Your task to perform on an android device: Open the calendar and show me this week's events? Image 0: 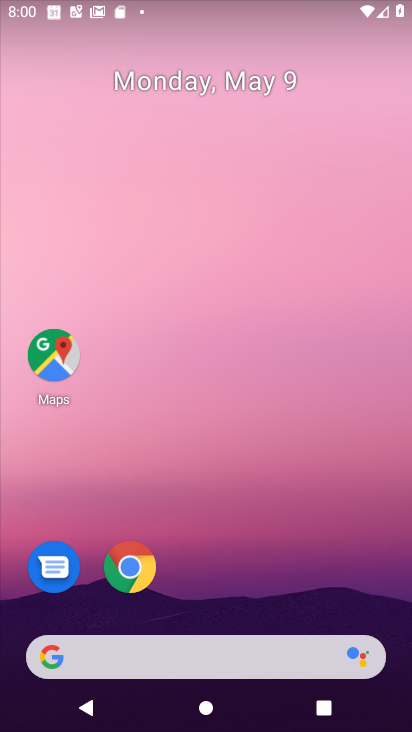
Step 0: drag from (409, 497) to (270, 168)
Your task to perform on an android device: Open the calendar and show me this week's events? Image 1: 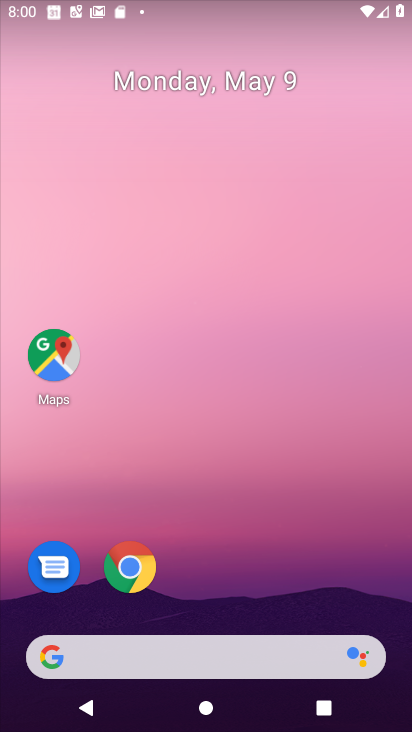
Step 1: drag from (203, 627) to (225, 137)
Your task to perform on an android device: Open the calendar and show me this week's events? Image 2: 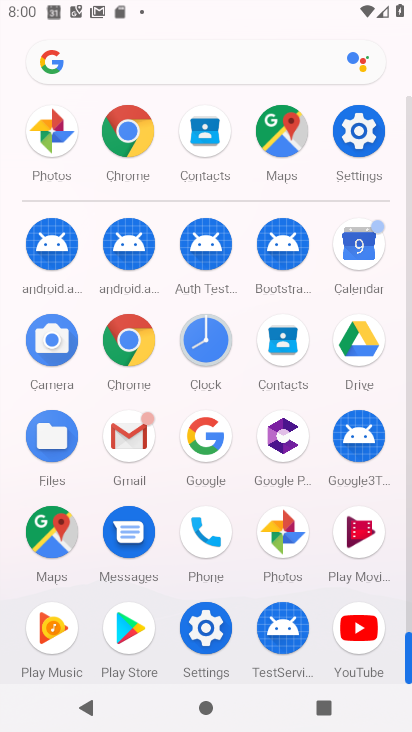
Step 2: click (362, 242)
Your task to perform on an android device: Open the calendar and show me this week's events? Image 3: 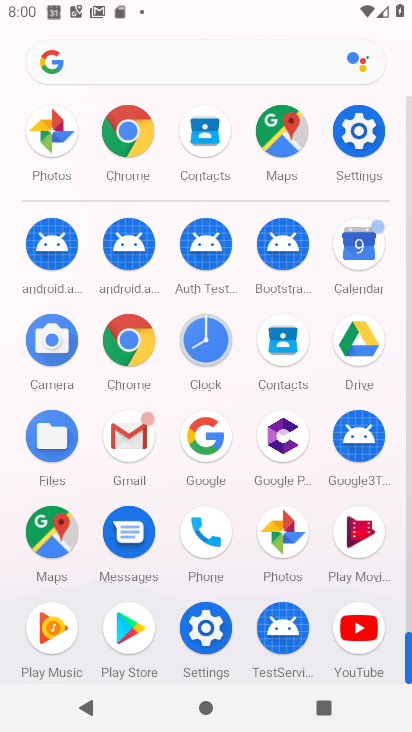
Step 3: click (362, 242)
Your task to perform on an android device: Open the calendar and show me this week's events? Image 4: 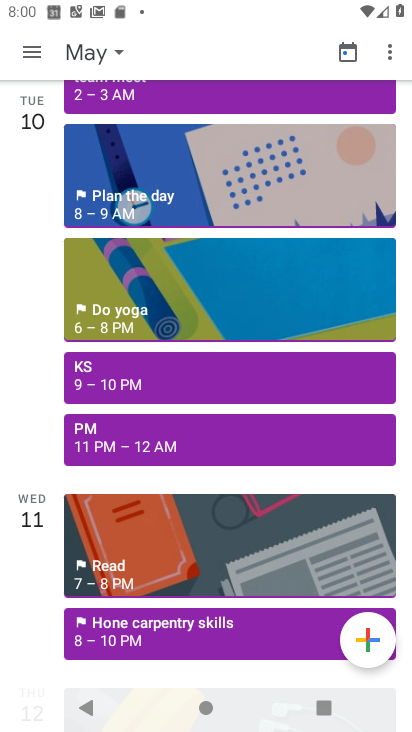
Step 4: click (114, 59)
Your task to perform on an android device: Open the calendar and show me this week's events? Image 5: 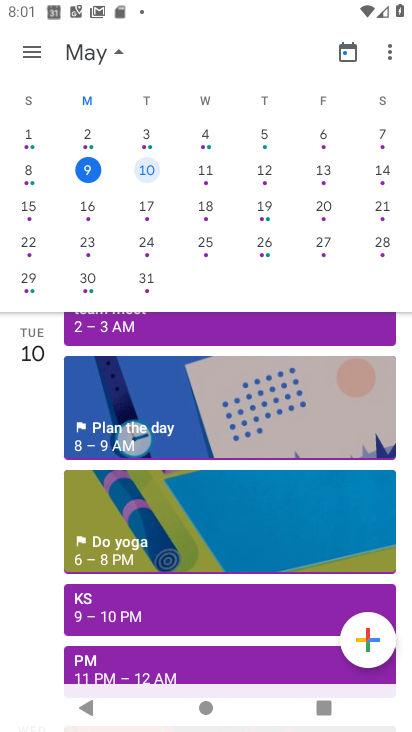
Step 5: click (267, 178)
Your task to perform on an android device: Open the calendar and show me this week's events? Image 6: 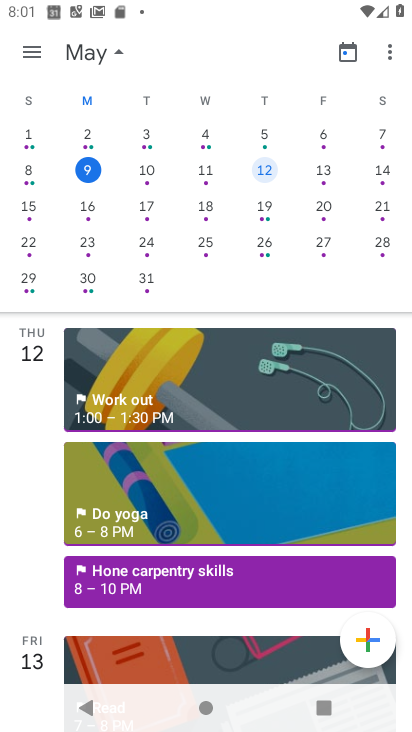
Step 6: click (268, 176)
Your task to perform on an android device: Open the calendar and show me this week's events? Image 7: 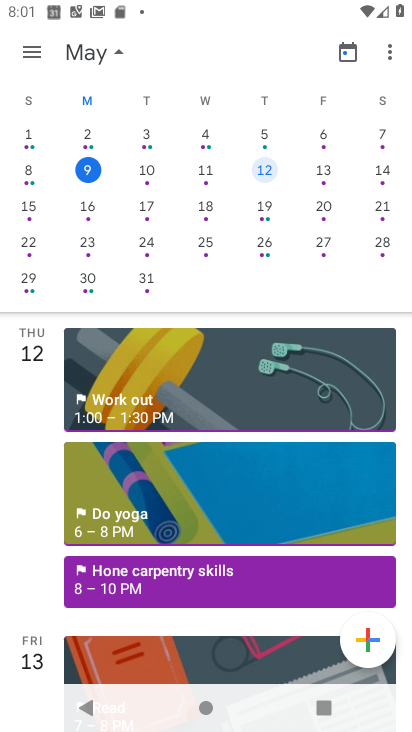
Step 7: task complete